Your task to perform on an android device: empty trash in the gmail app Image 0: 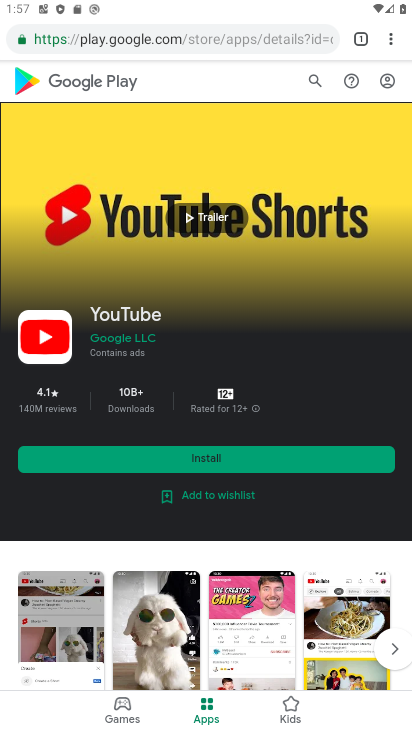
Step 0: press home button
Your task to perform on an android device: empty trash in the gmail app Image 1: 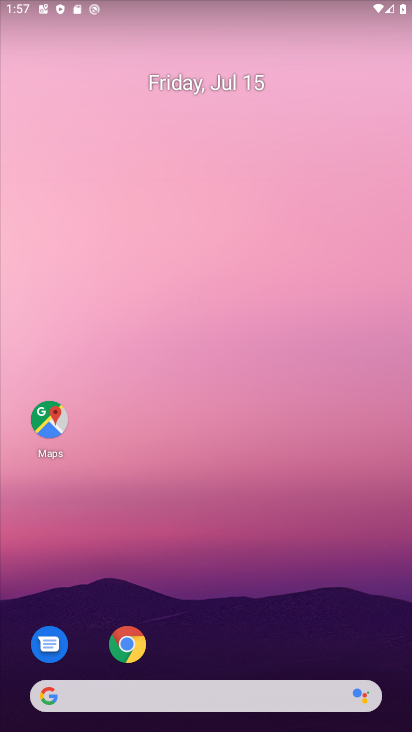
Step 1: drag from (35, 651) to (175, 227)
Your task to perform on an android device: empty trash in the gmail app Image 2: 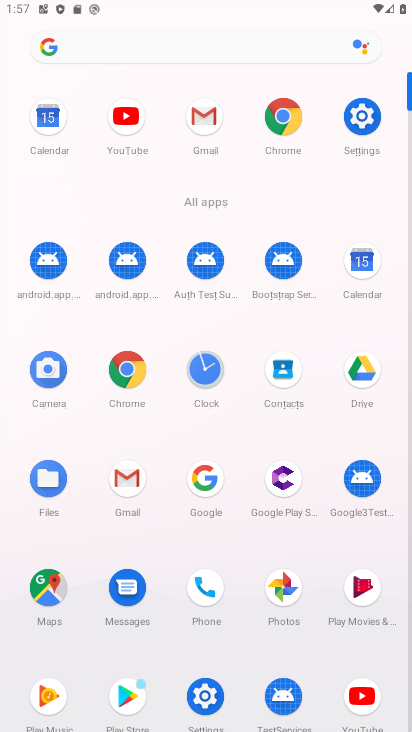
Step 2: click (123, 480)
Your task to perform on an android device: empty trash in the gmail app Image 3: 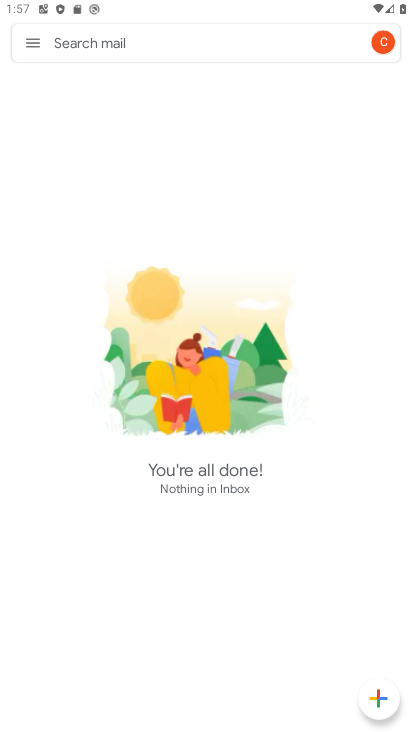
Step 3: click (40, 41)
Your task to perform on an android device: empty trash in the gmail app Image 4: 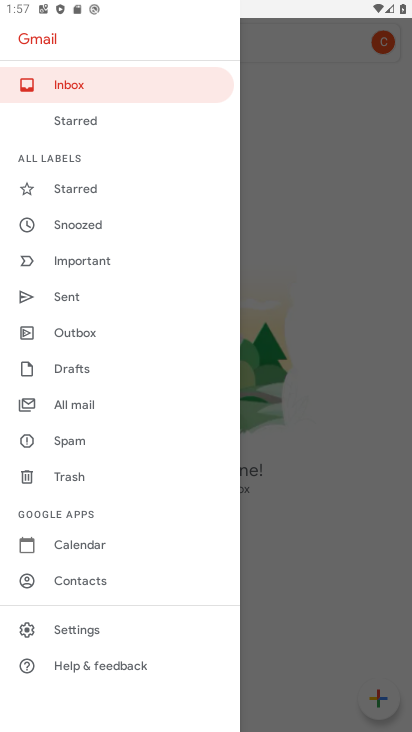
Step 4: click (76, 471)
Your task to perform on an android device: empty trash in the gmail app Image 5: 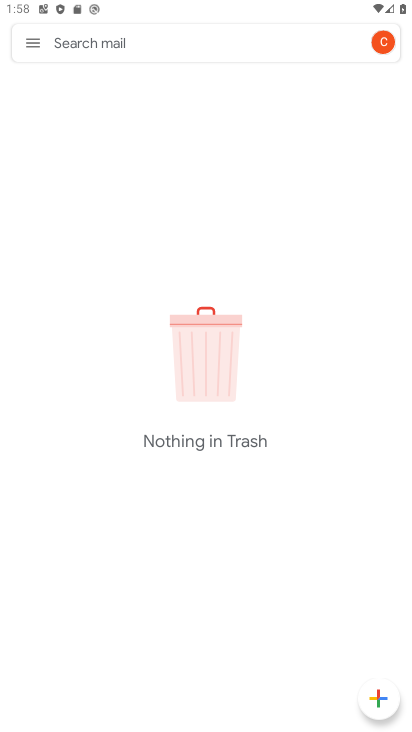
Step 5: task complete